Your task to perform on an android device: Add razer blade to the cart on bestbuy Image 0: 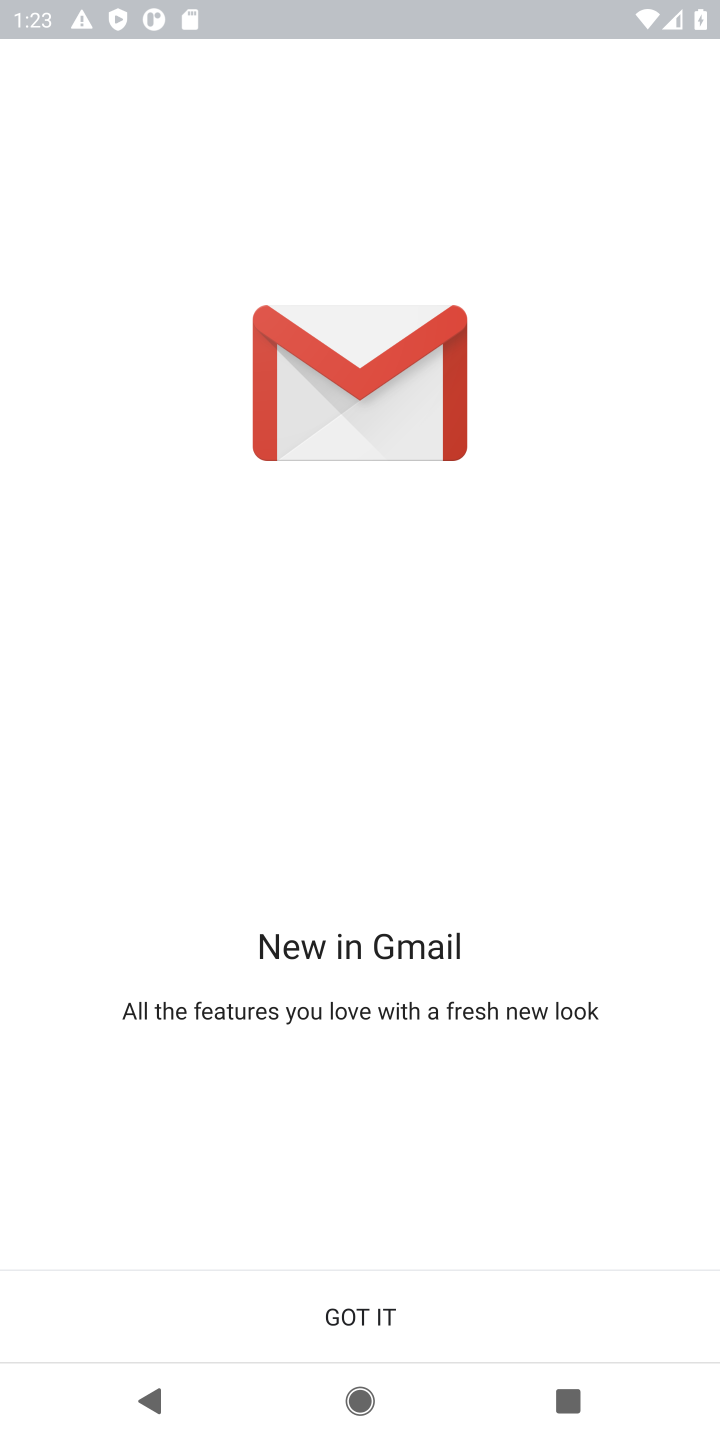
Step 0: press home button
Your task to perform on an android device: Add razer blade to the cart on bestbuy Image 1: 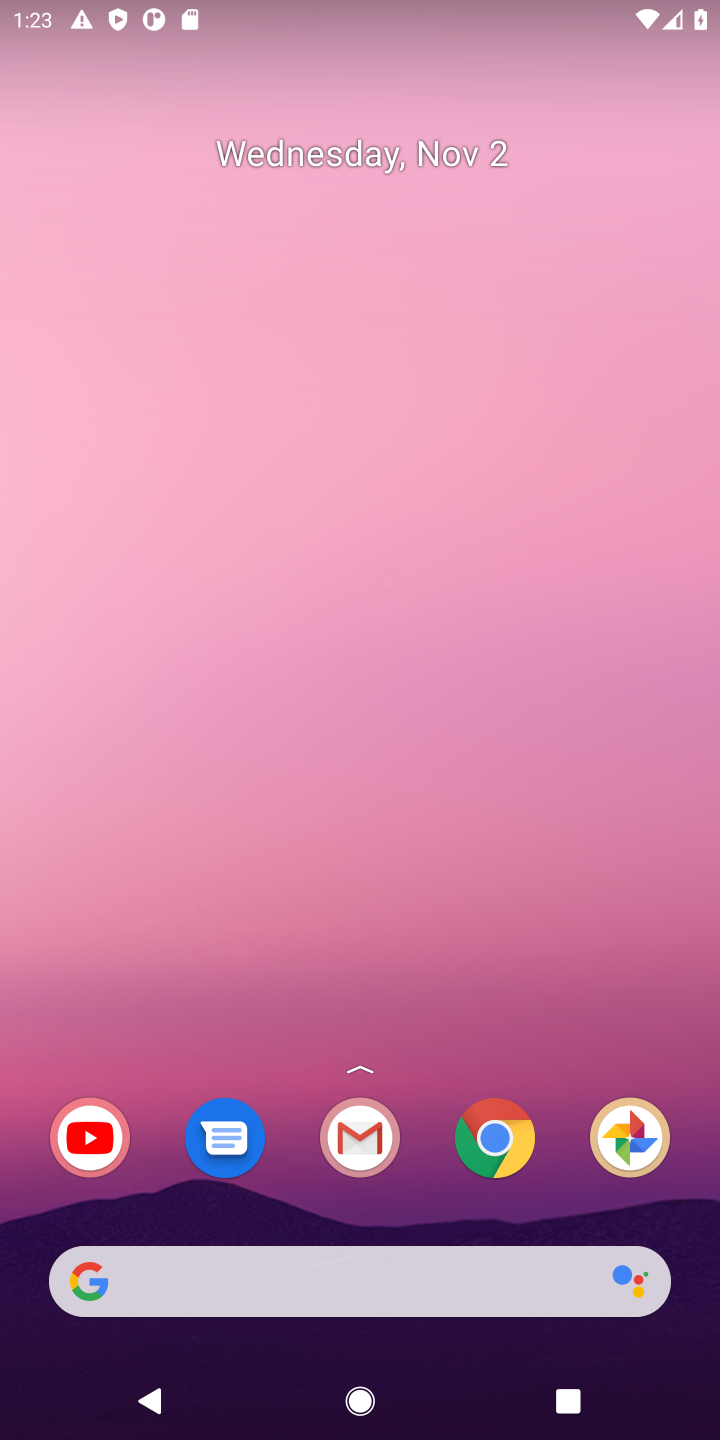
Step 1: click (123, 1276)
Your task to perform on an android device: Add razer blade to the cart on bestbuy Image 2: 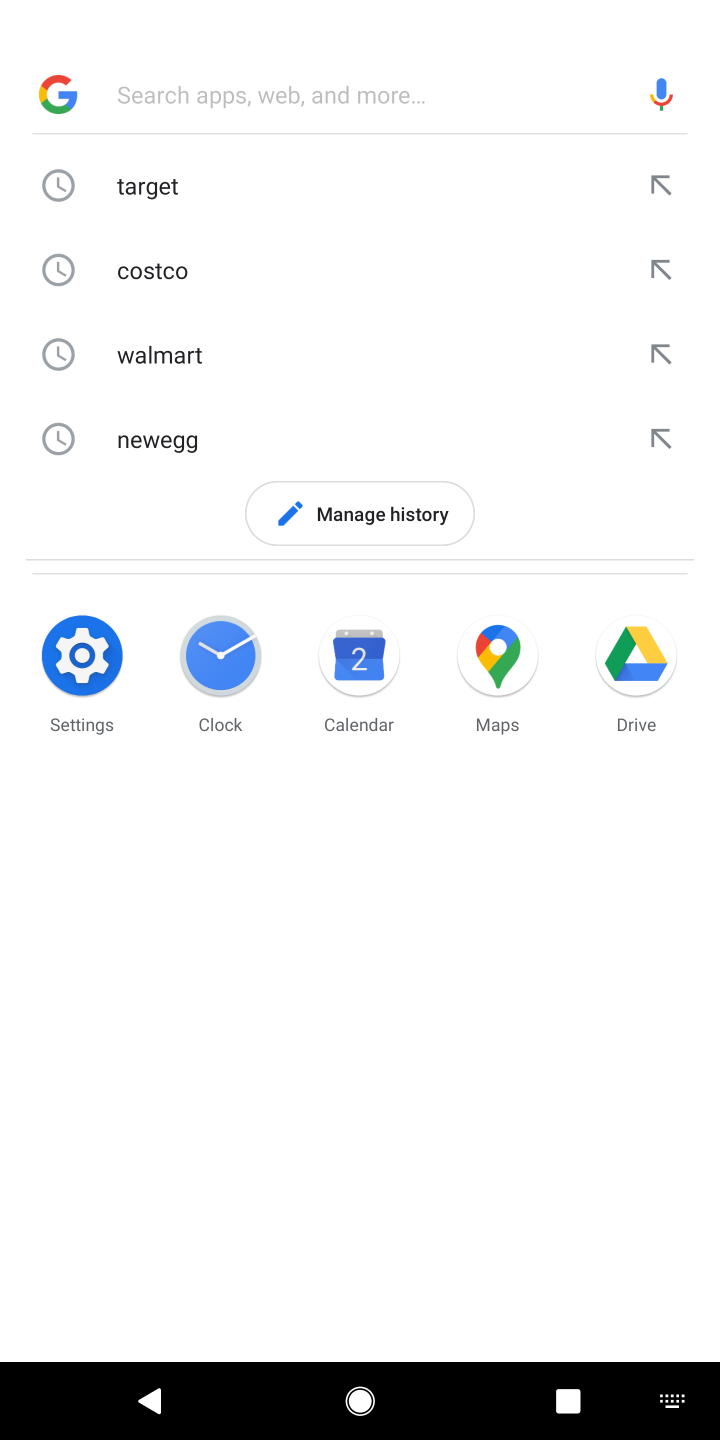
Step 2: type "bestbuy"
Your task to perform on an android device: Add razer blade to the cart on bestbuy Image 3: 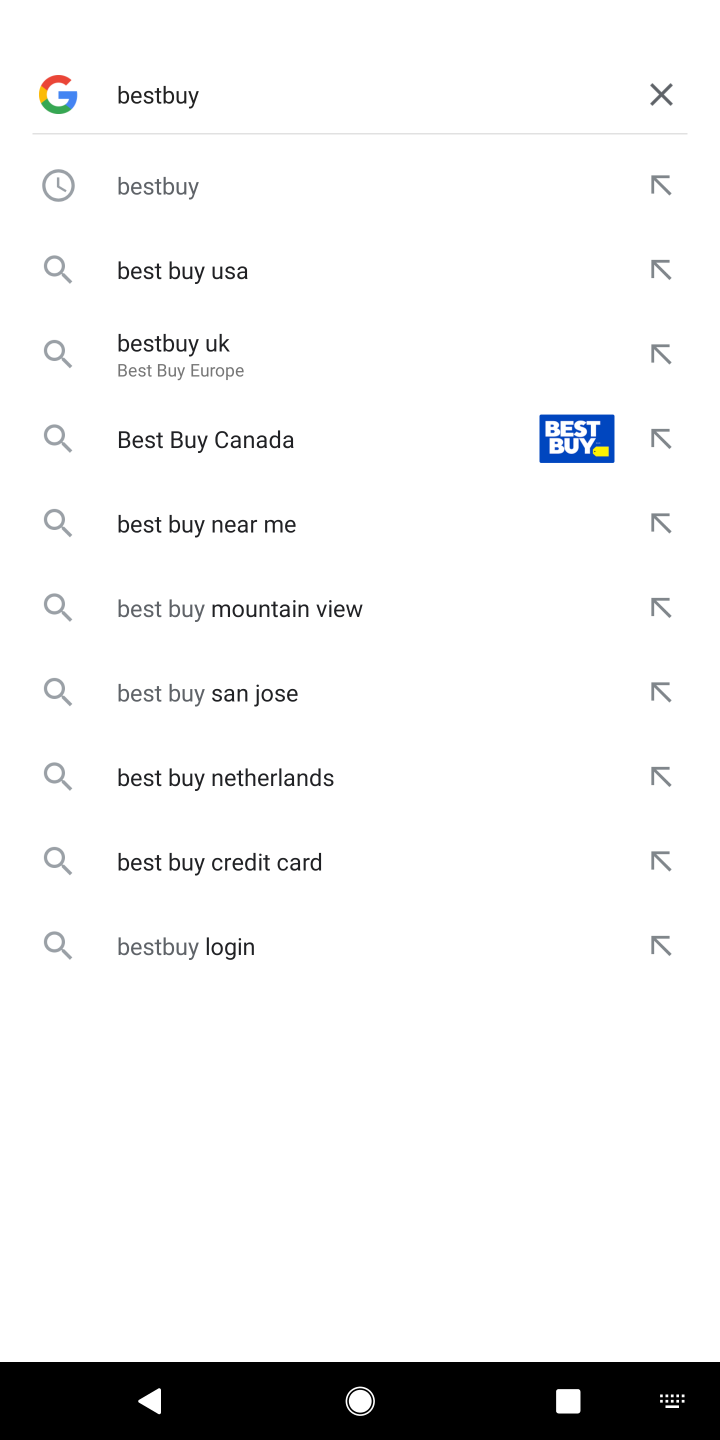
Step 3: press enter
Your task to perform on an android device: Add razer blade to the cart on bestbuy Image 4: 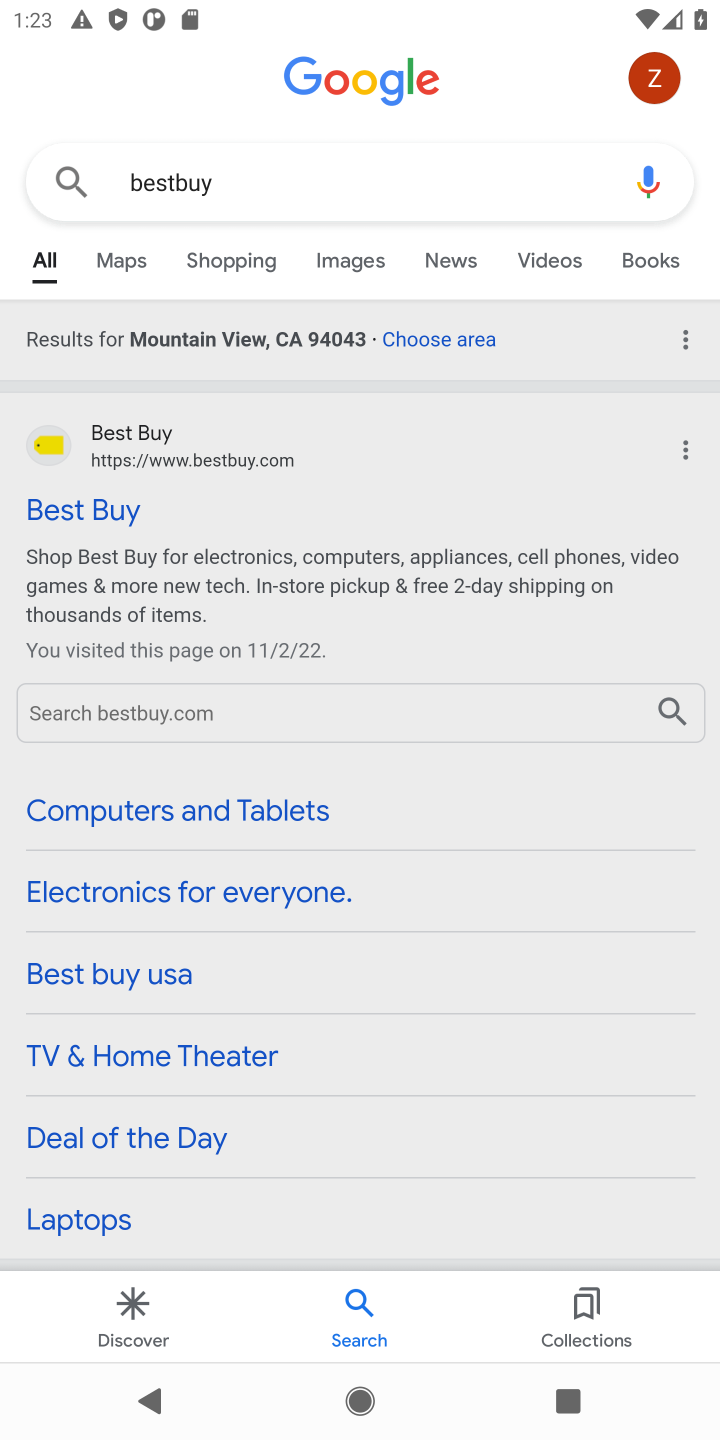
Step 4: click (96, 515)
Your task to perform on an android device: Add razer blade to the cart on bestbuy Image 5: 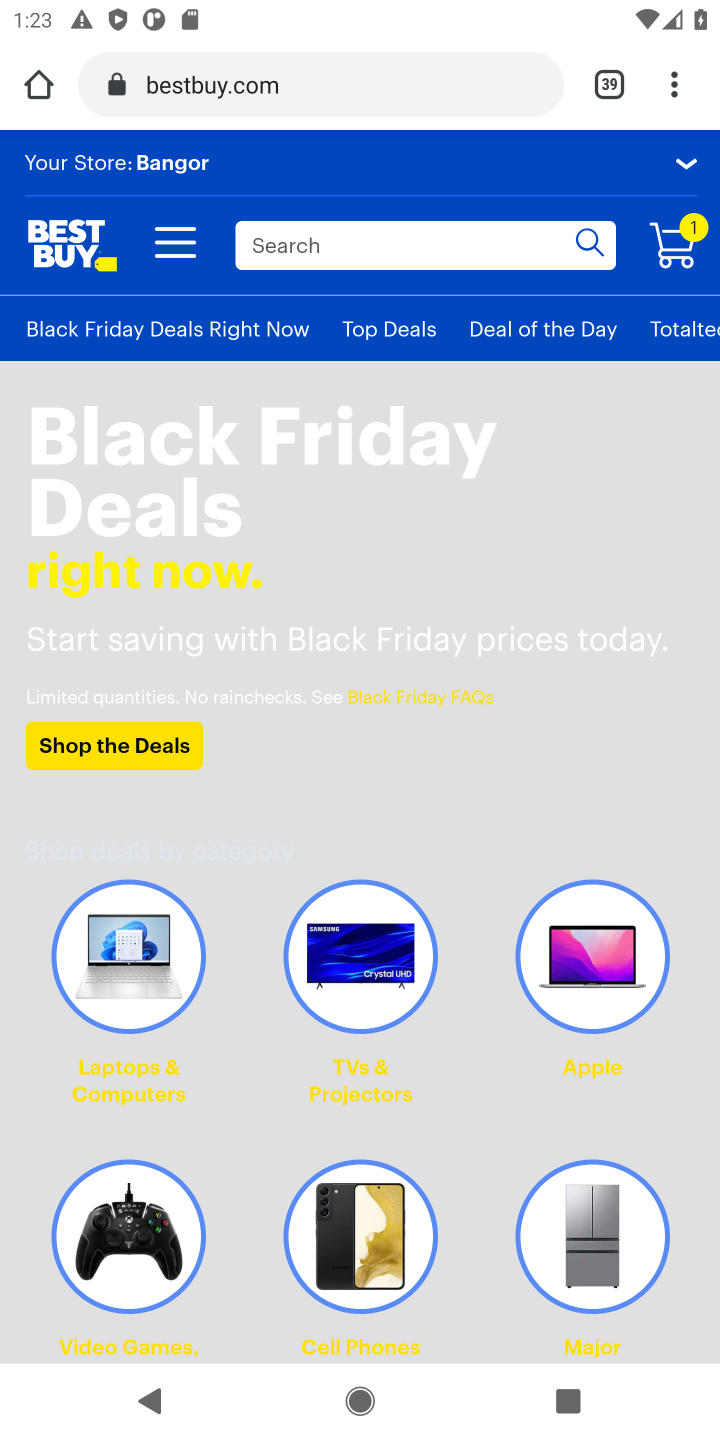
Step 5: click (336, 243)
Your task to perform on an android device: Add razer blade to the cart on bestbuy Image 6: 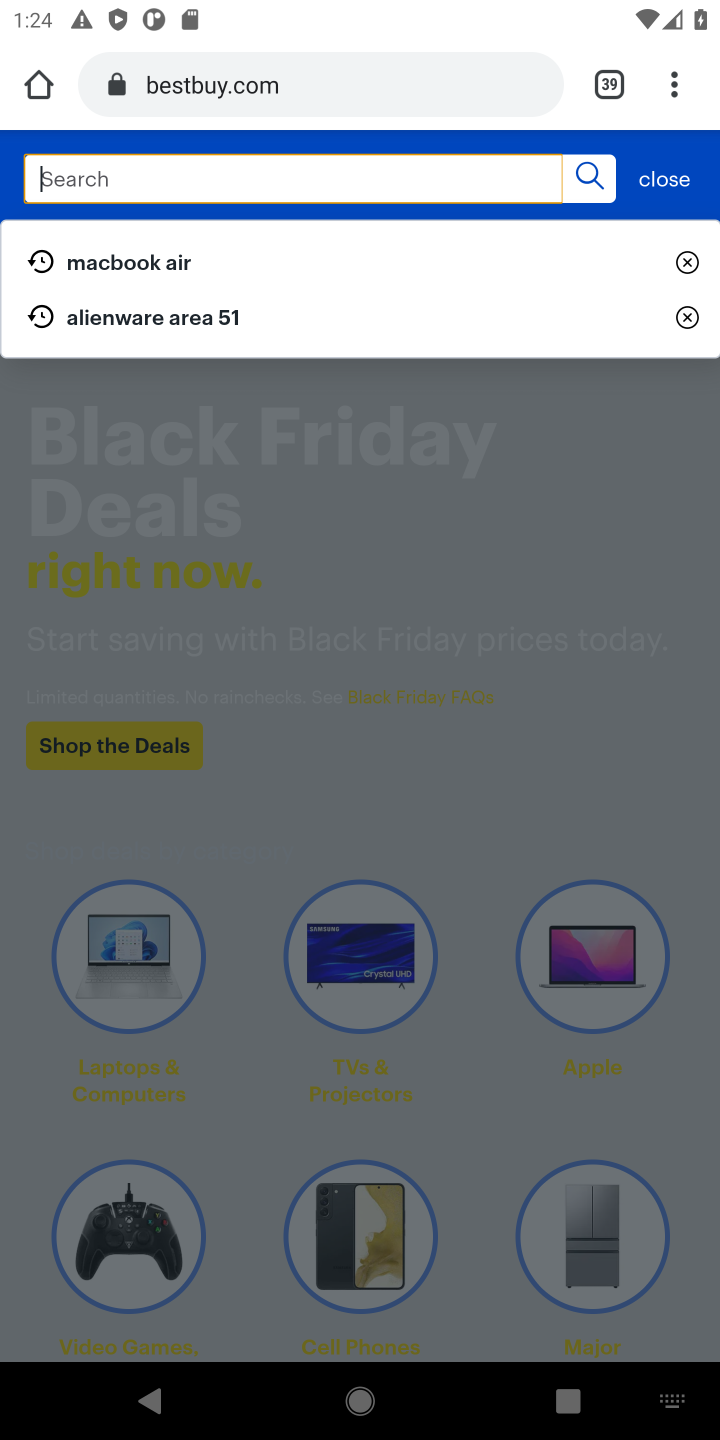
Step 6: type "razer blade"
Your task to perform on an android device: Add razer blade to the cart on bestbuy Image 7: 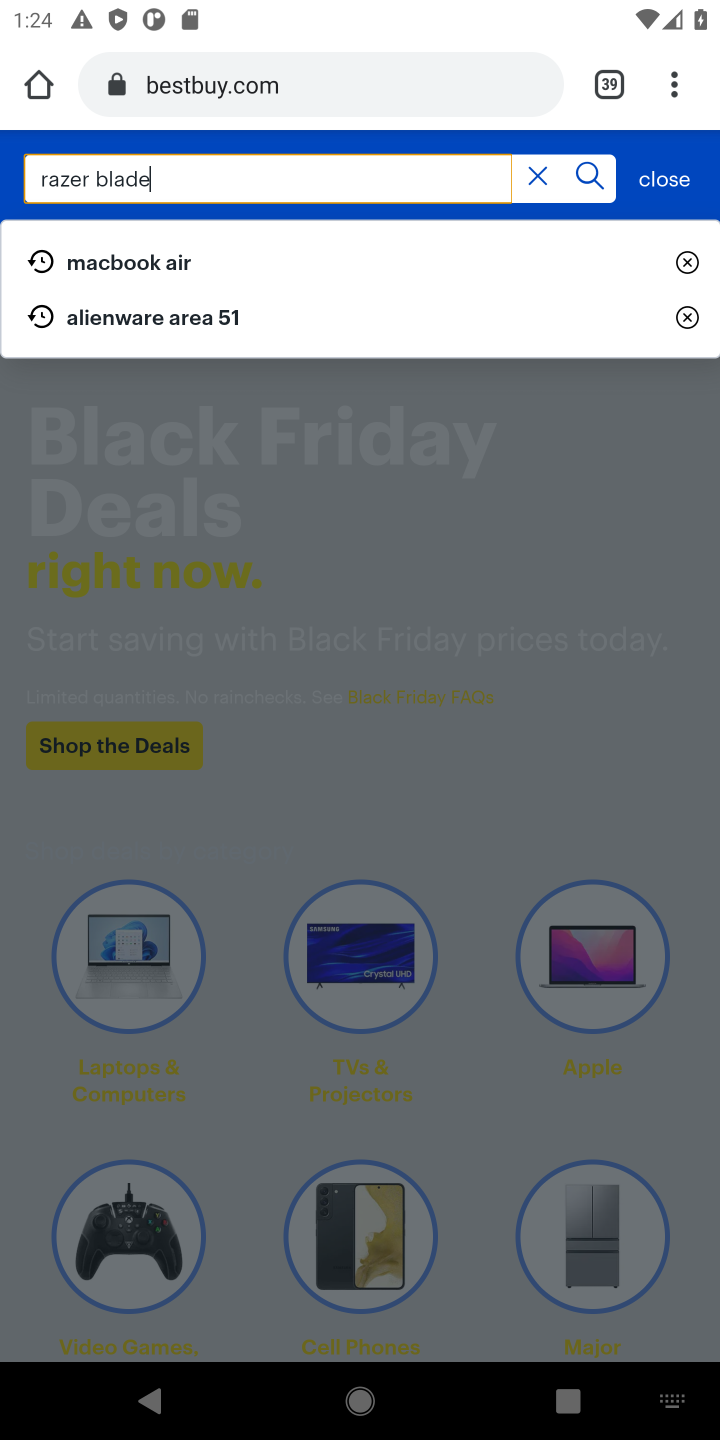
Step 7: press enter
Your task to perform on an android device: Add razer blade to the cart on bestbuy Image 8: 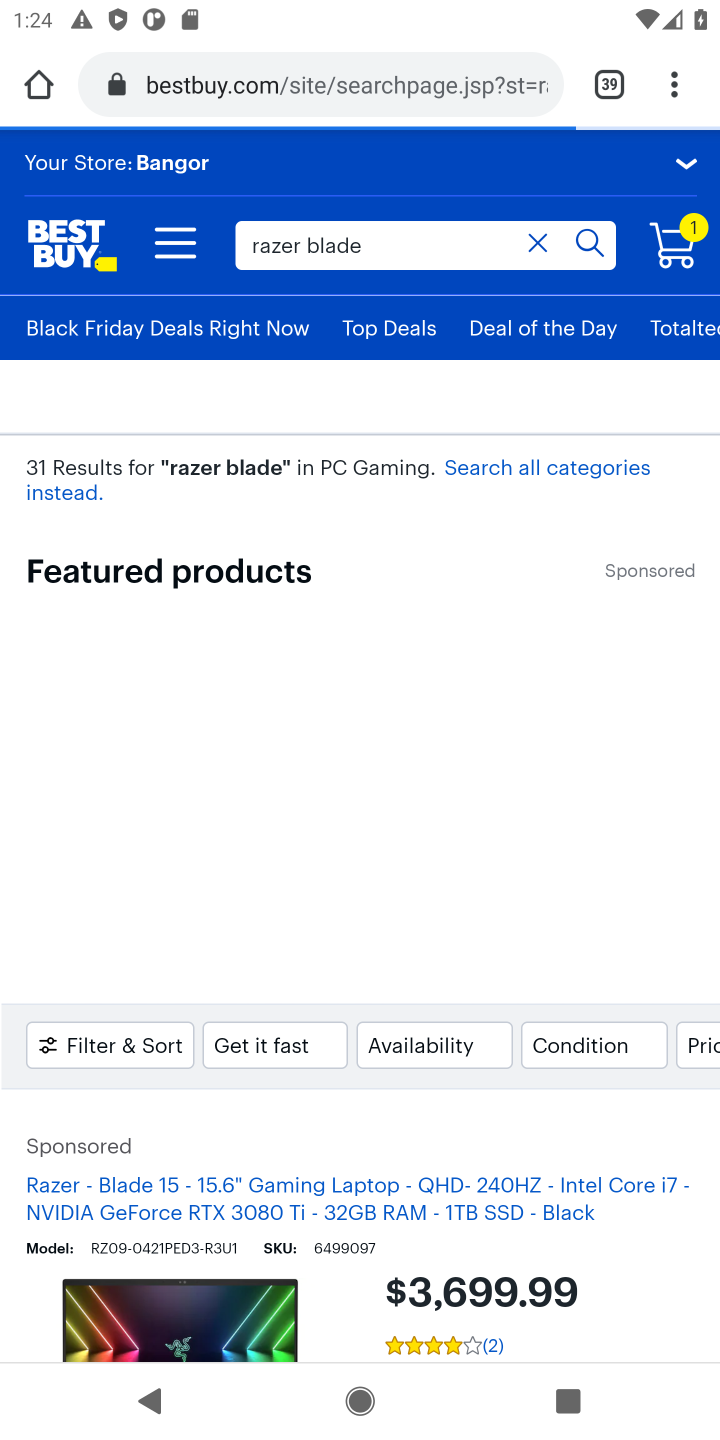
Step 8: drag from (395, 1204) to (404, 764)
Your task to perform on an android device: Add razer blade to the cart on bestbuy Image 9: 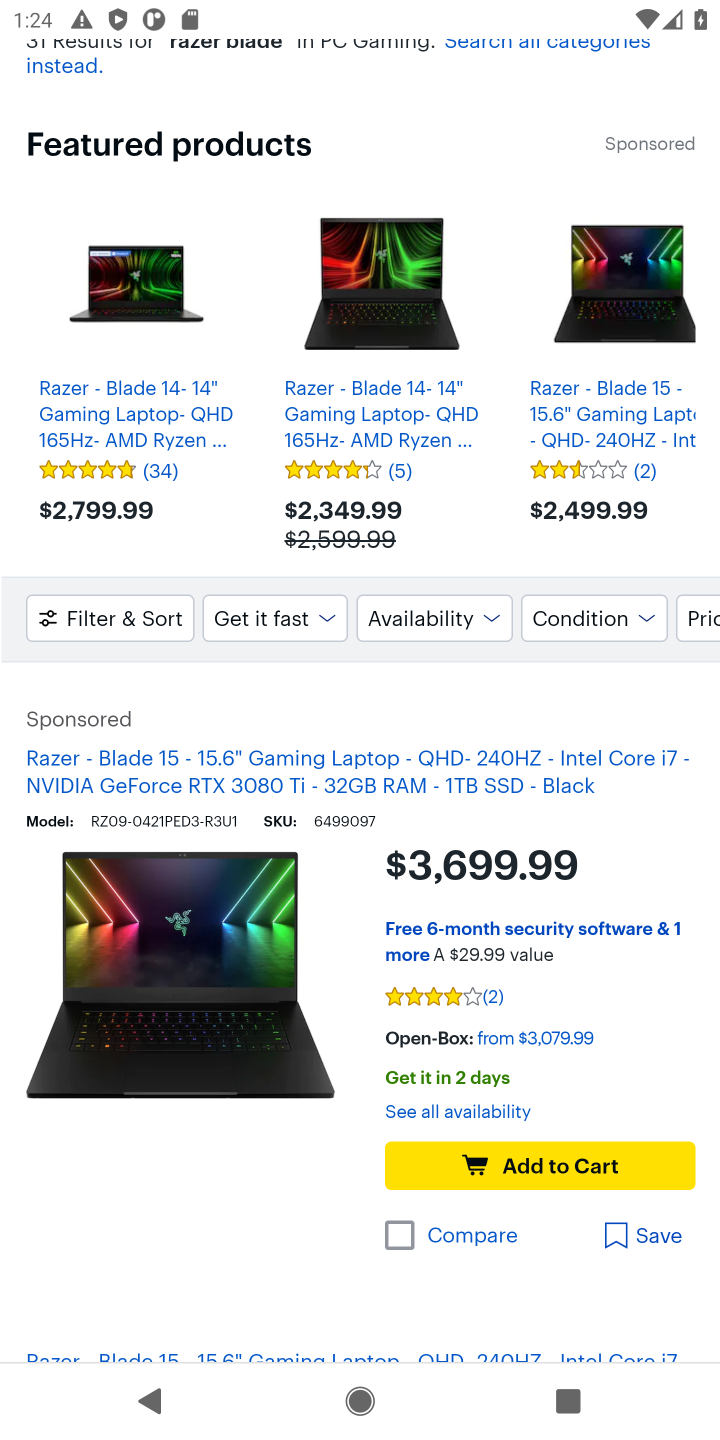
Step 9: click (518, 1010)
Your task to perform on an android device: Add razer blade to the cart on bestbuy Image 10: 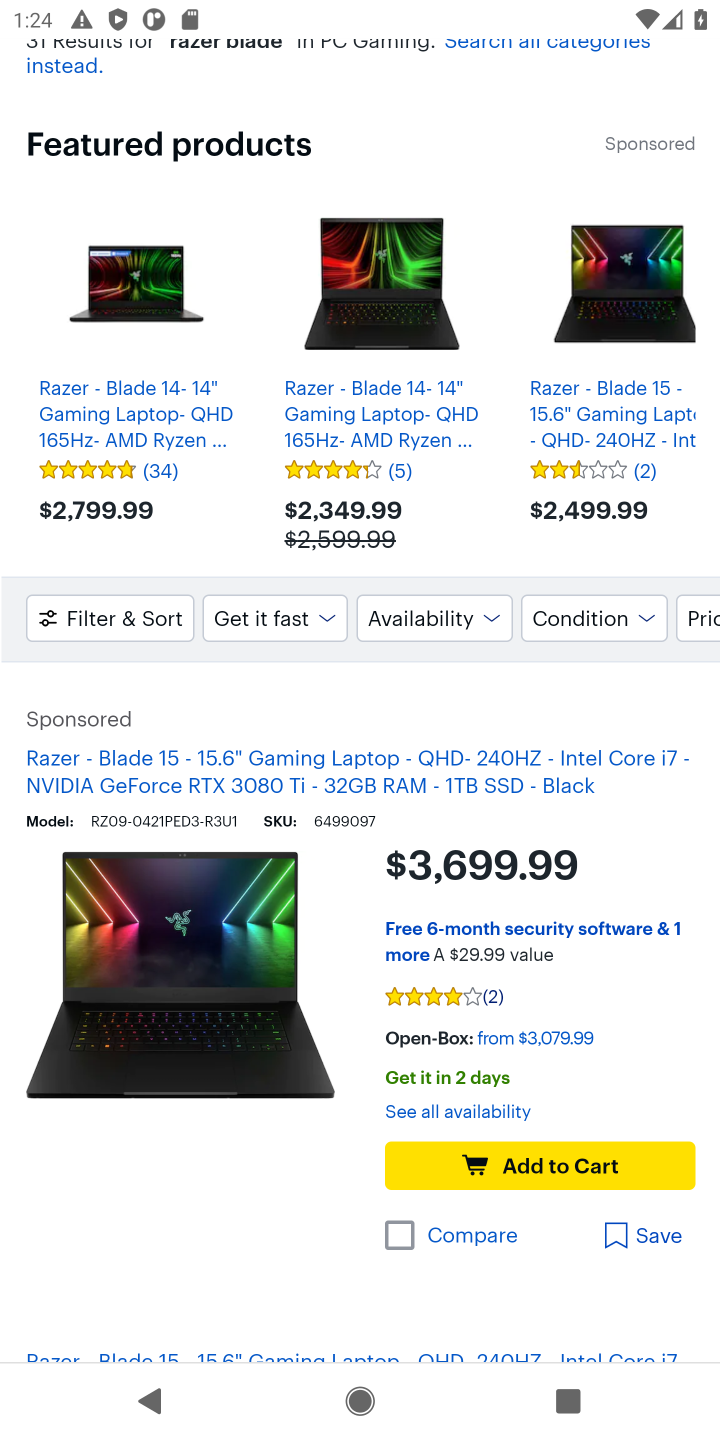
Step 10: click (543, 1170)
Your task to perform on an android device: Add razer blade to the cart on bestbuy Image 11: 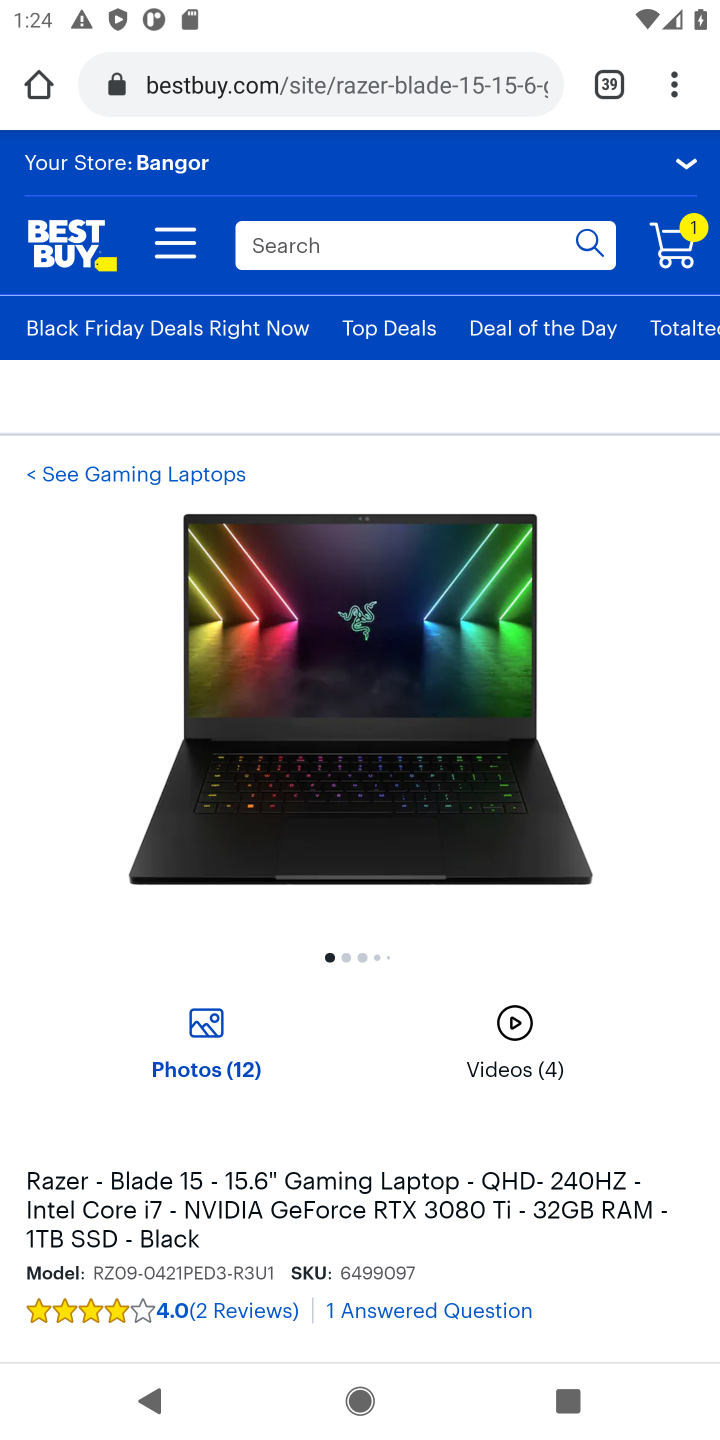
Step 11: task complete